Your task to perform on an android device: Search for "usb-c to usb-b" on bestbuy.com, select the first entry, and add it to the cart. Image 0: 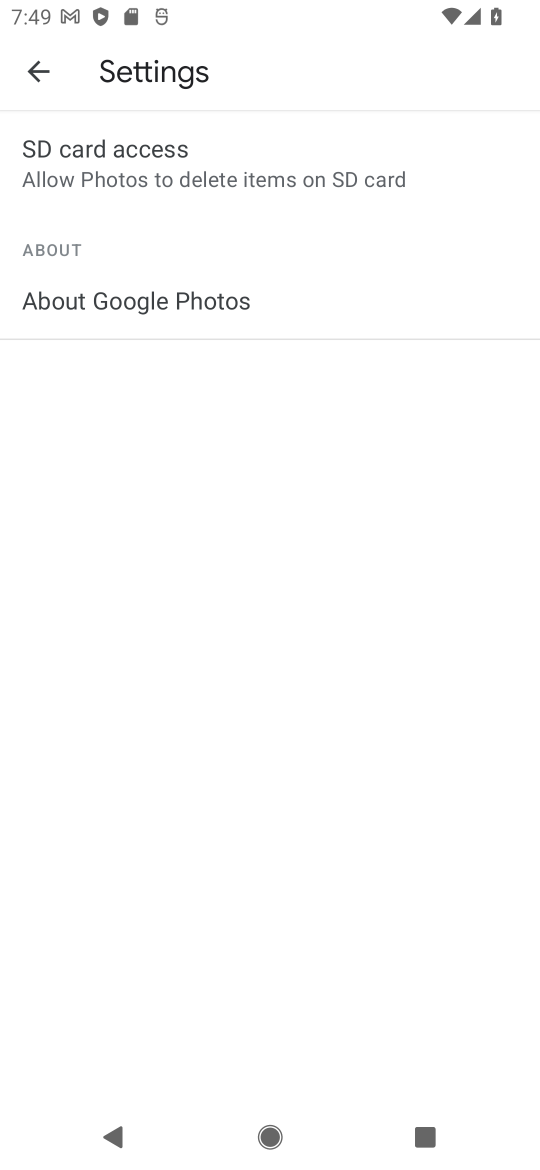
Step 0: press home button
Your task to perform on an android device: Search for "usb-c to usb-b" on bestbuy.com, select the first entry, and add it to the cart. Image 1: 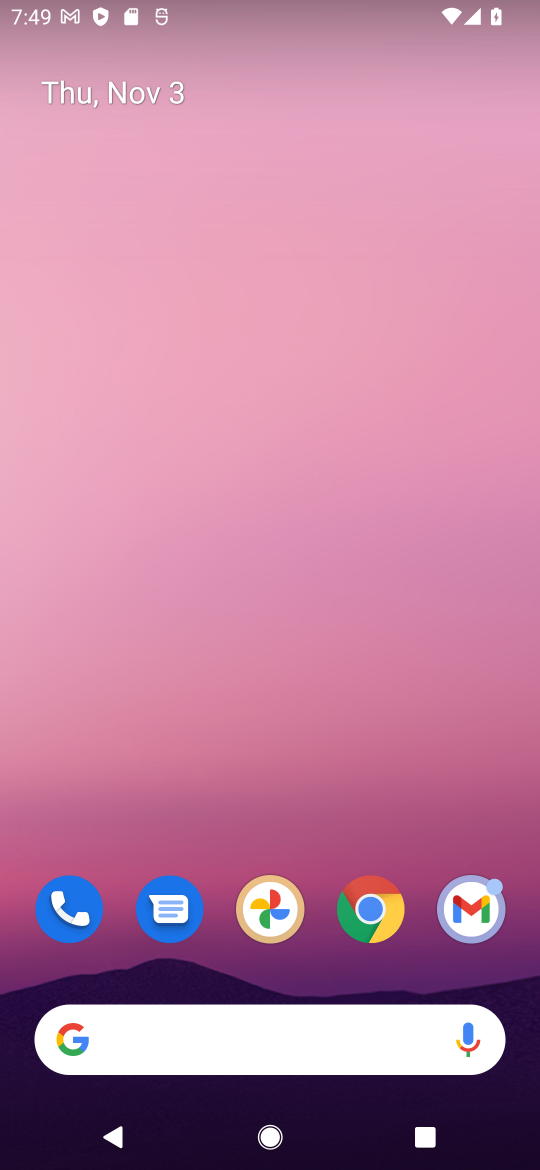
Step 1: drag from (229, 927) to (273, 334)
Your task to perform on an android device: Search for "usb-c to usb-b" on bestbuy.com, select the first entry, and add it to the cart. Image 2: 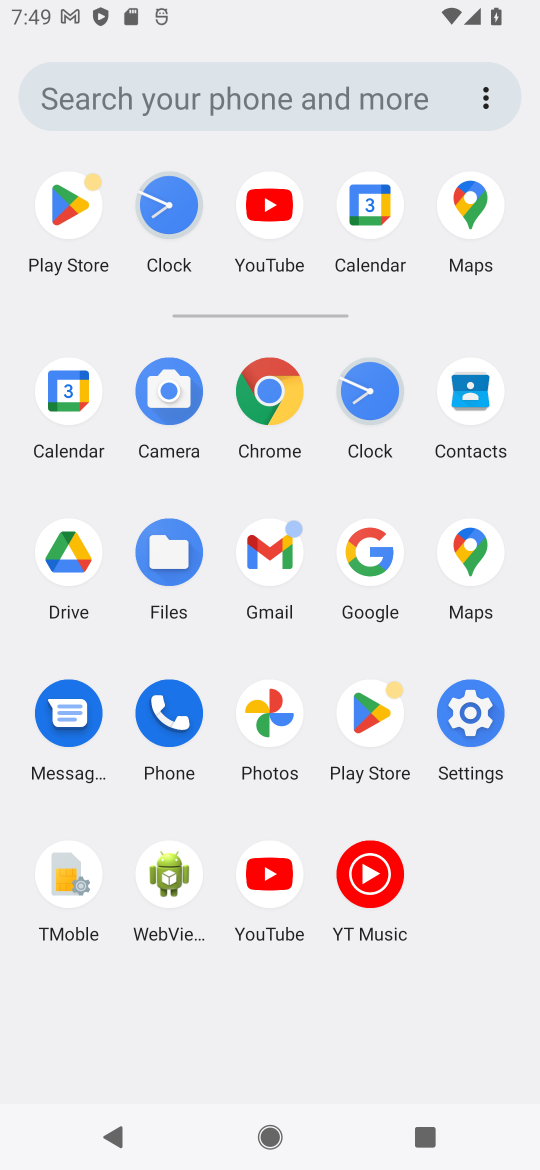
Step 2: click (361, 554)
Your task to perform on an android device: Search for "usb-c to usb-b" on bestbuy.com, select the first entry, and add it to the cart. Image 3: 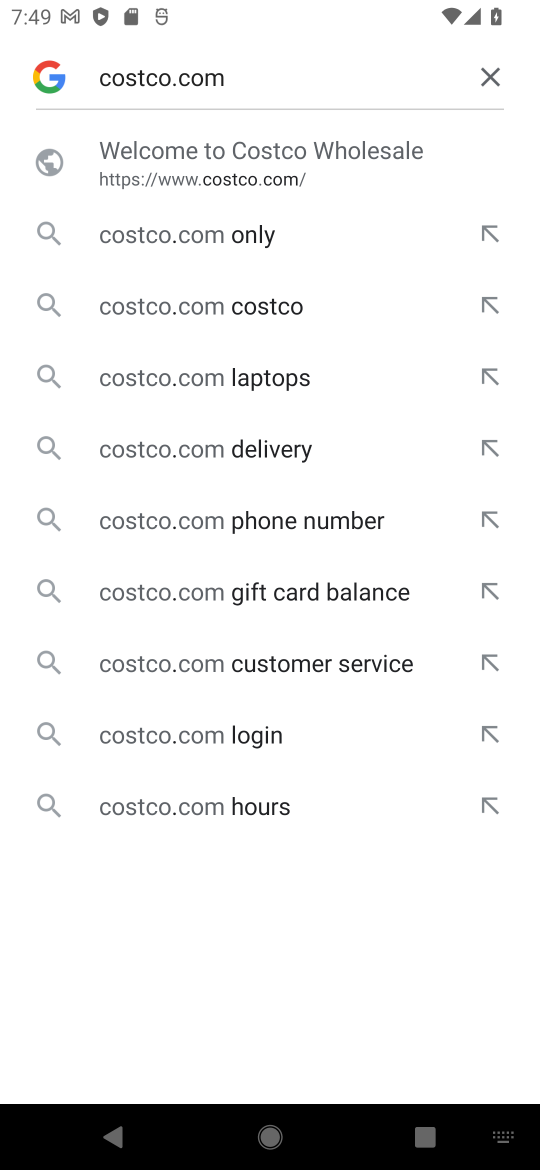
Step 3: click (484, 78)
Your task to perform on an android device: Search for "usb-c to usb-b" on bestbuy.com, select the first entry, and add it to the cart. Image 4: 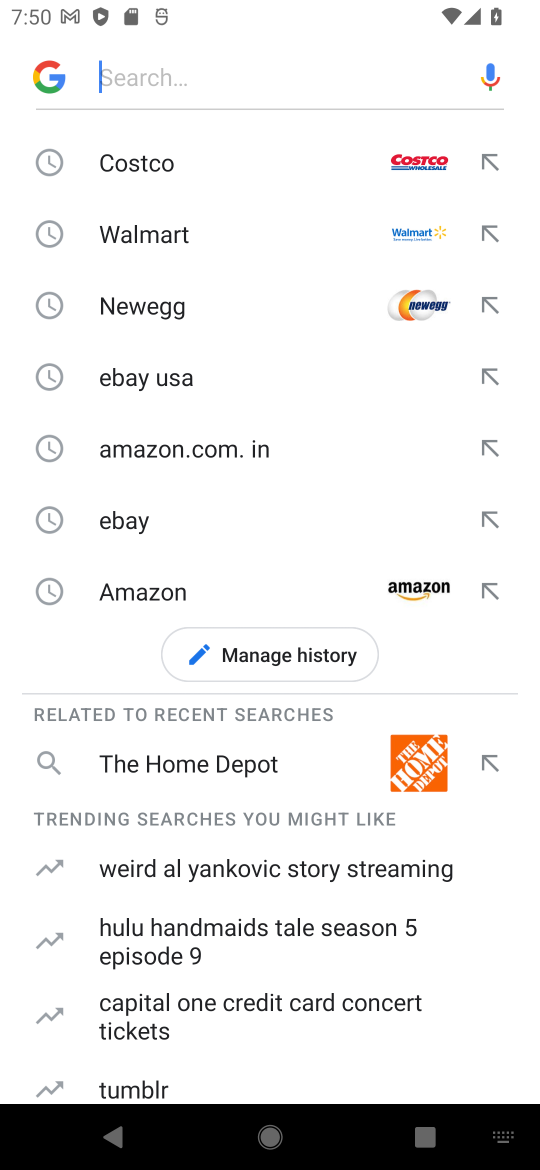
Step 4: click (226, 61)
Your task to perform on an android device: Search for "usb-c to usb-b" on bestbuy.com, select the first entry, and add it to the cart. Image 5: 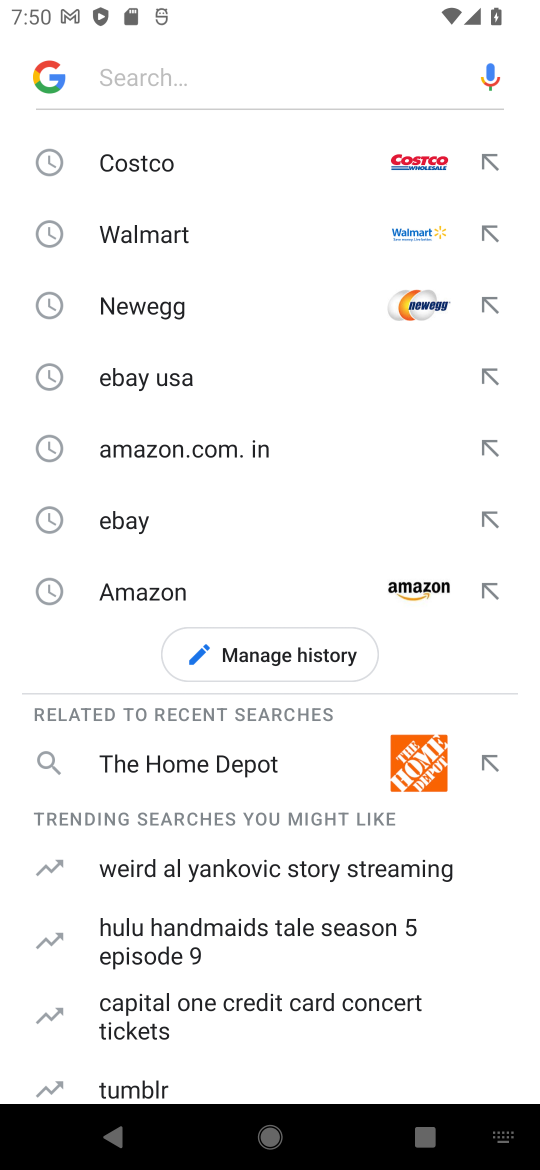
Step 5: type "bestbuy "
Your task to perform on an android device: Search for "usb-c to usb-b" on bestbuy.com, select the first entry, and add it to the cart. Image 6: 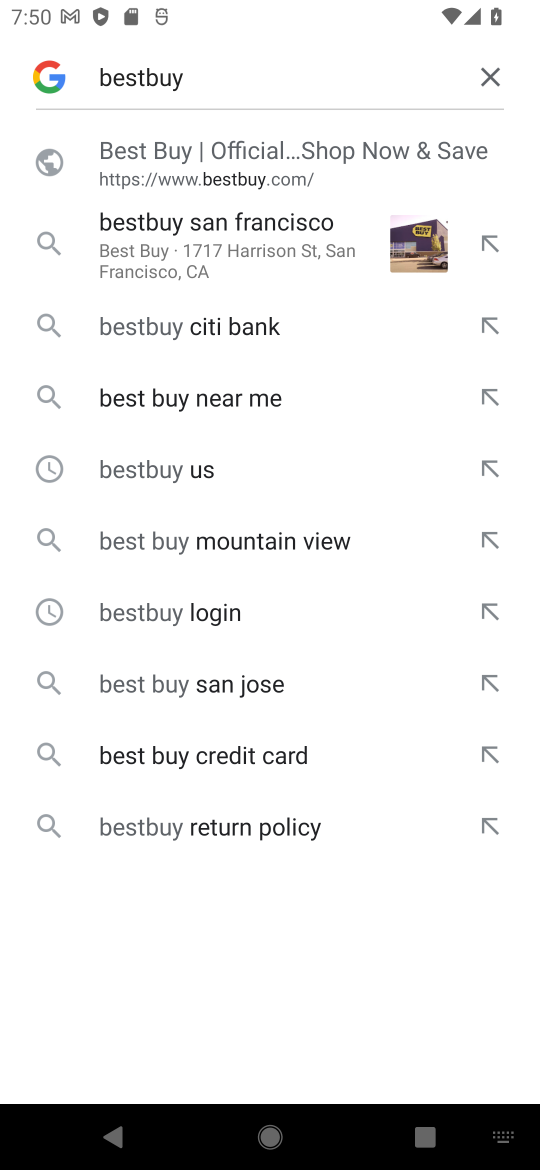
Step 6: click (198, 175)
Your task to perform on an android device: Search for "usb-c to usb-b" on bestbuy.com, select the first entry, and add it to the cart. Image 7: 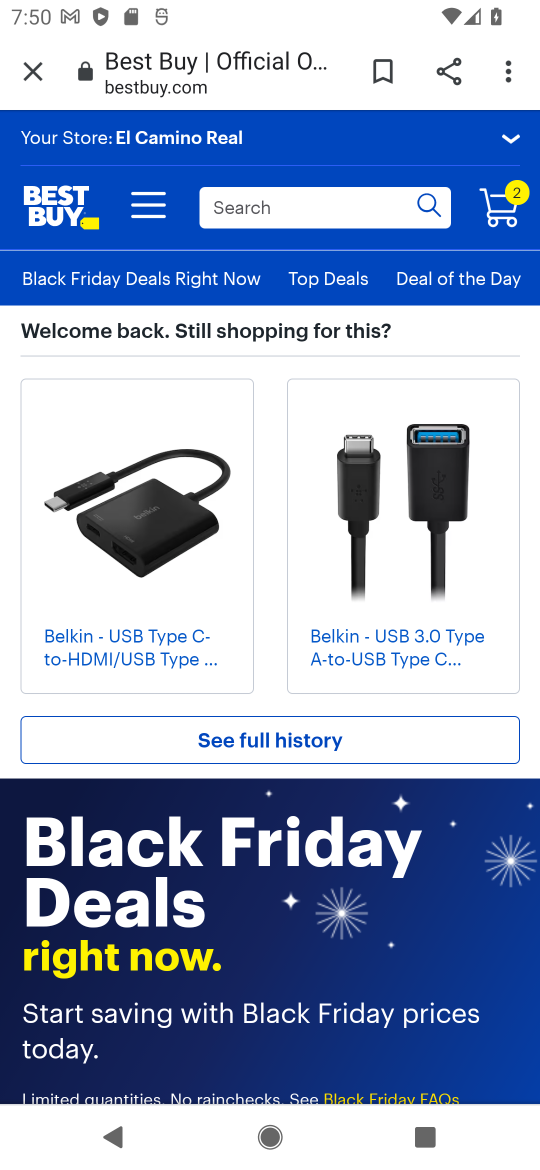
Step 7: click (349, 195)
Your task to perform on an android device: Search for "usb-c to usb-b" on bestbuy.com, select the first entry, and add it to the cart. Image 8: 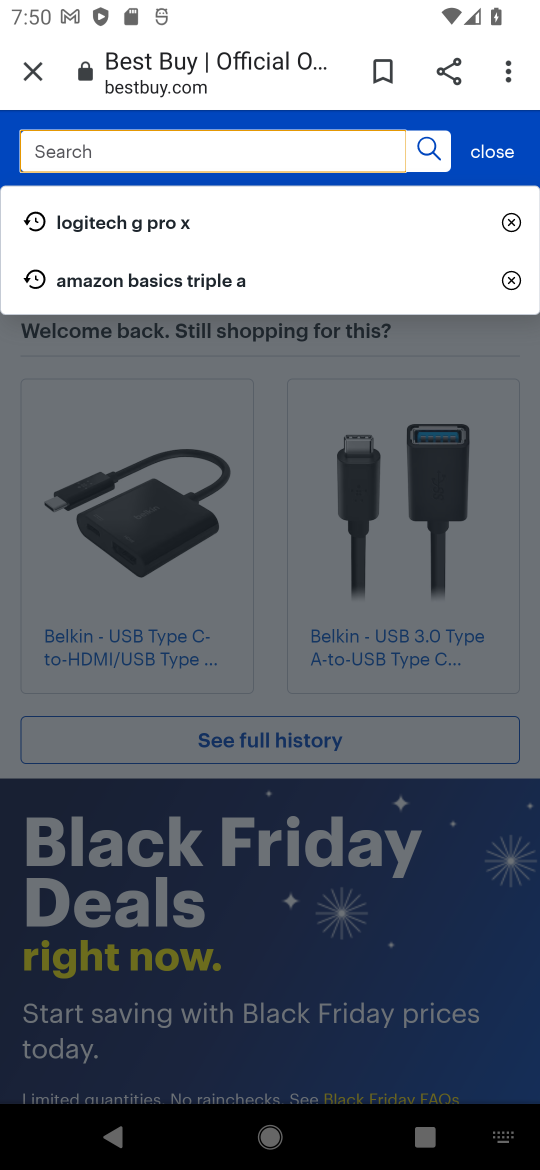
Step 8: type "usb-c to usb-b "
Your task to perform on an android device: Search for "usb-c to usb-b" on bestbuy.com, select the first entry, and add it to the cart. Image 9: 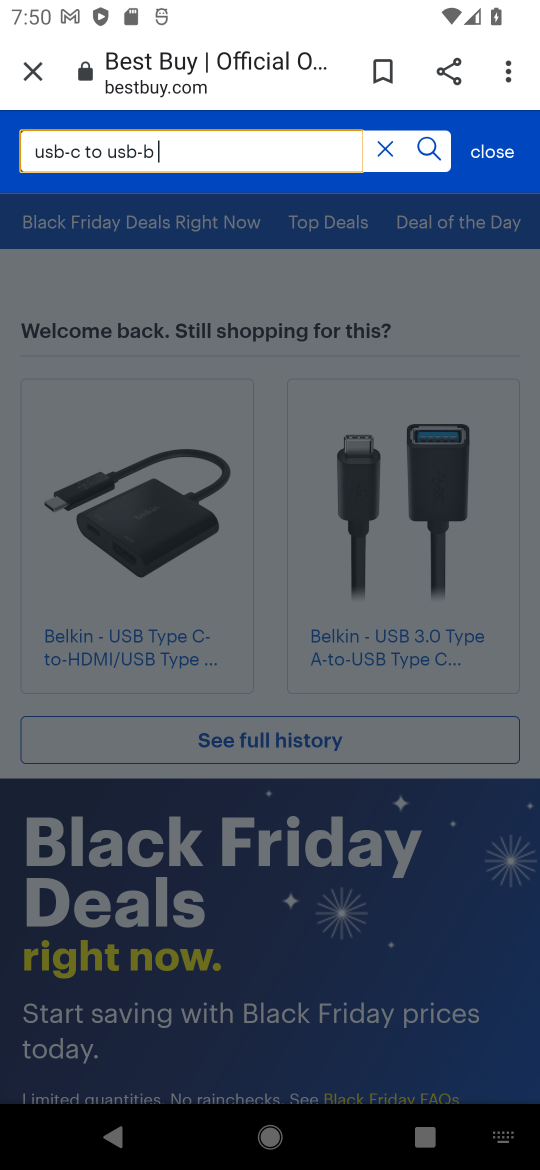
Step 9: click (428, 137)
Your task to perform on an android device: Search for "usb-c to usb-b" on bestbuy.com, select the first entry, and add it to the cart. Image 10: 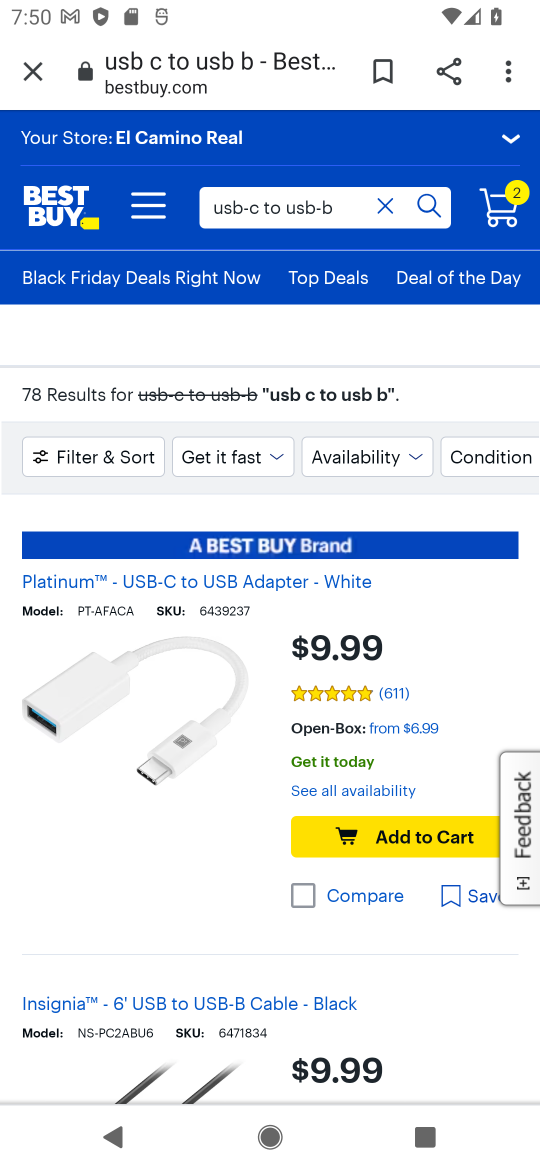
Step 10: click (401, 838)
Your task to perform on an android device: Search for "usb-c to usb-b" on bestbuy.com, select the first entry, and add it to the cart. Image 11: 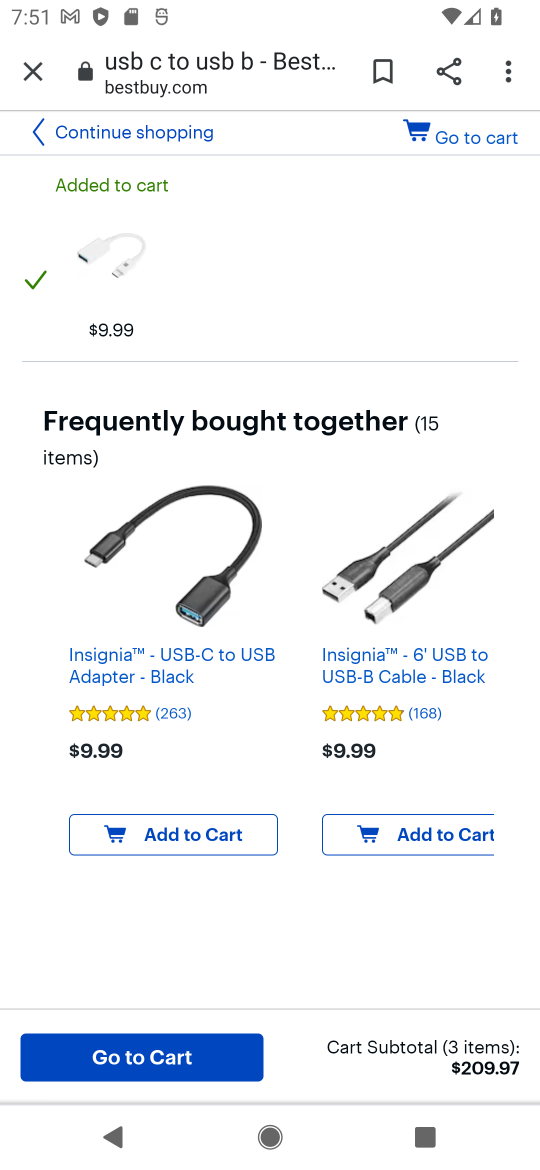
Step 11: click (167, 824)
Your task to perform on an android device: Search for "usb-c to usb-b" on bestbuy.com, select the first entry, and add it to the cart. Image 12: 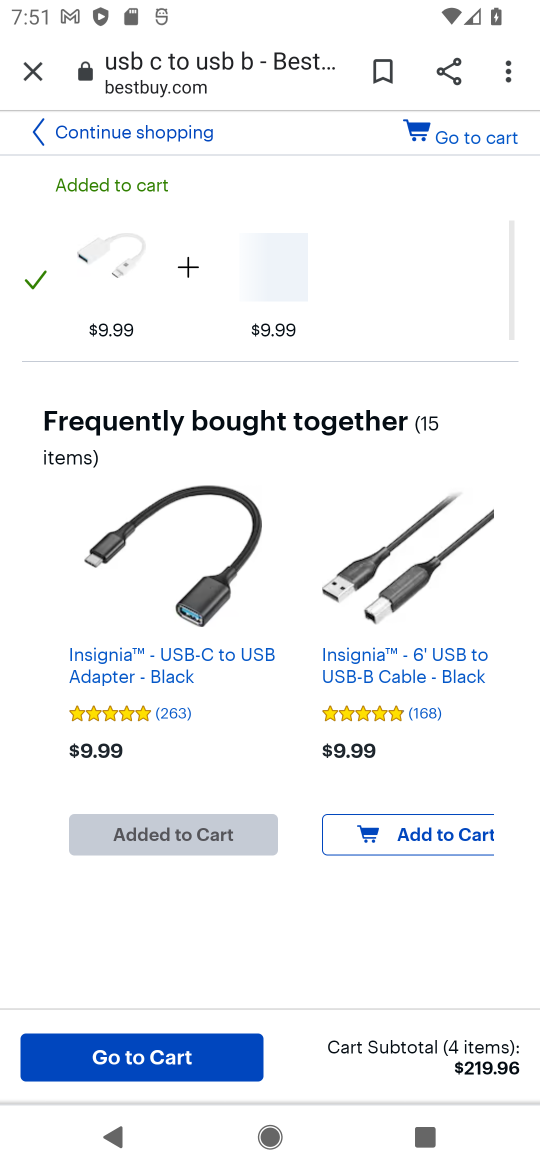
Step 12: task complete